Your task to perform on an android device: Open Google Maps Image 0: 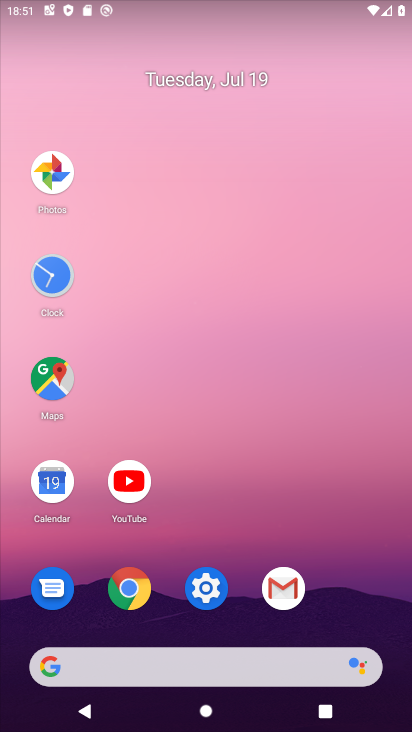
Step 0: click (46, 379)
Your task to perform on an android device: Open Google Maps Image 1: 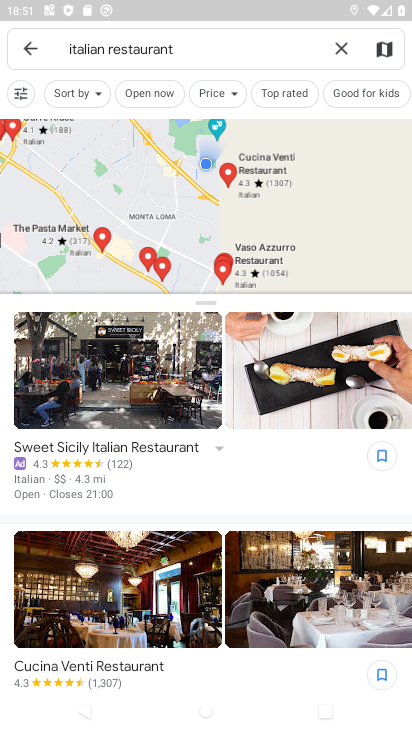
Step 1: task complete